Your task to perform on an android device: add a contact Image 0: 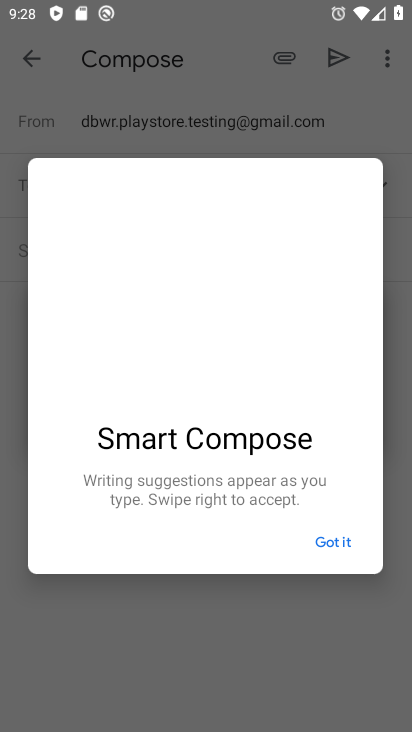
Step 0: press home button
Your task to perform on an android device: add a contact Image 1: 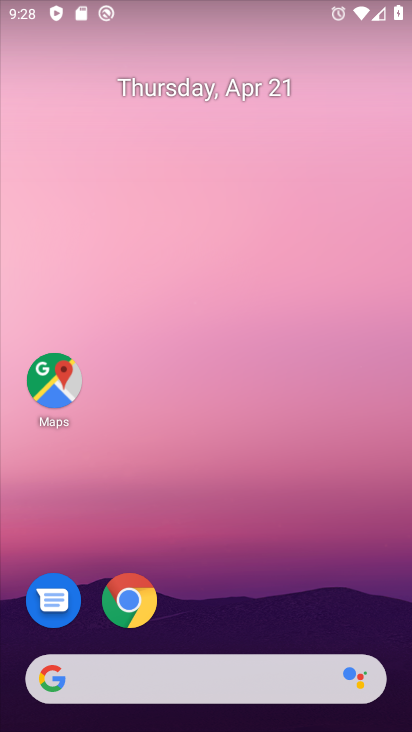
Step 1: drag from (232, 566) to (245, 93)
Your task to perform on an android device: add a contact Image 2: 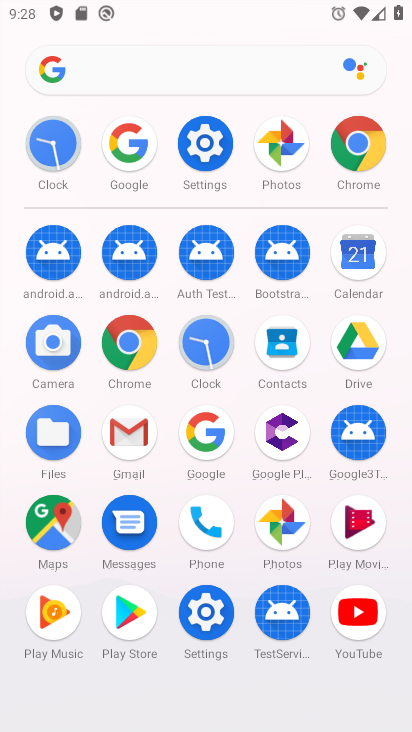
Step 2: click (284, 342)
Your task to perform on an android device: add a contact Image 3: 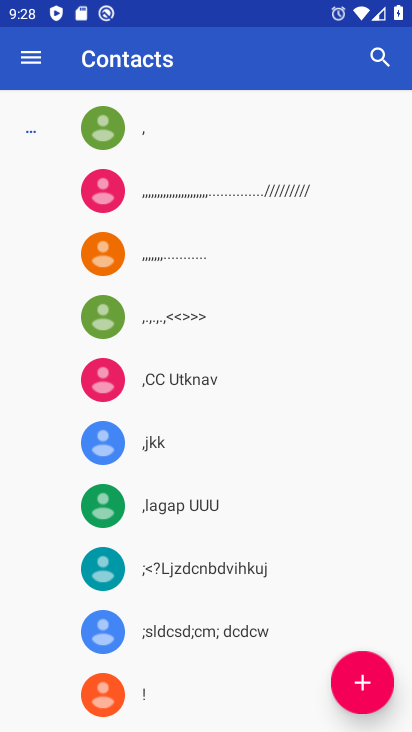
Step 3: click (356, 685)
Your task to perform on an android device: add a contact Image 4: 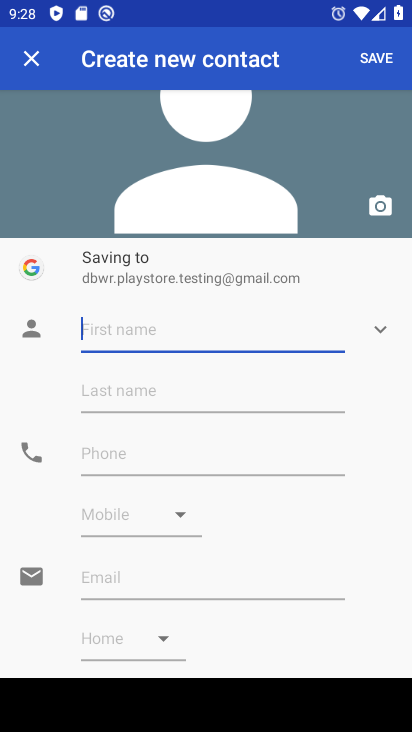
Step 4: click (149, 329)
Your task to perform on an android device: add a contact Image 5: 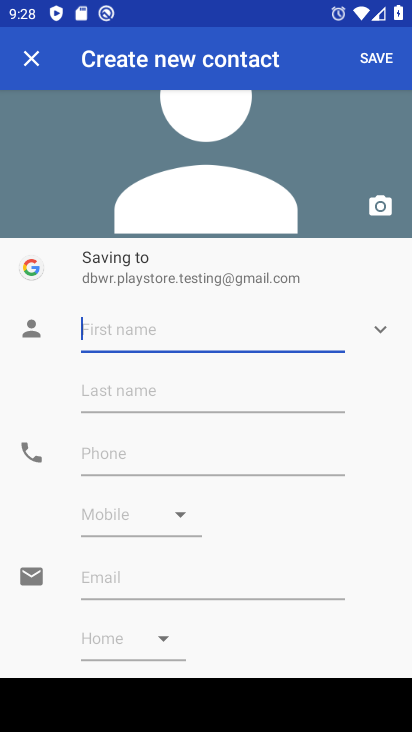
Step 5: type "jfgh"
Your task to perform on an android device: add a contact Image 6: 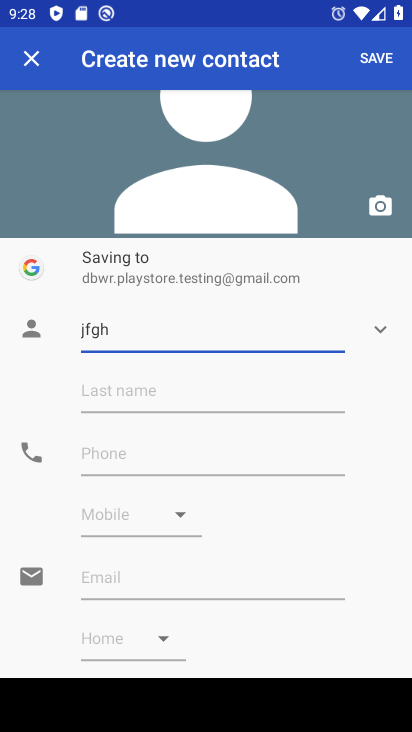
Step 6: click (375, 55)
Your task to perform on an android device: add a contact Image 7: 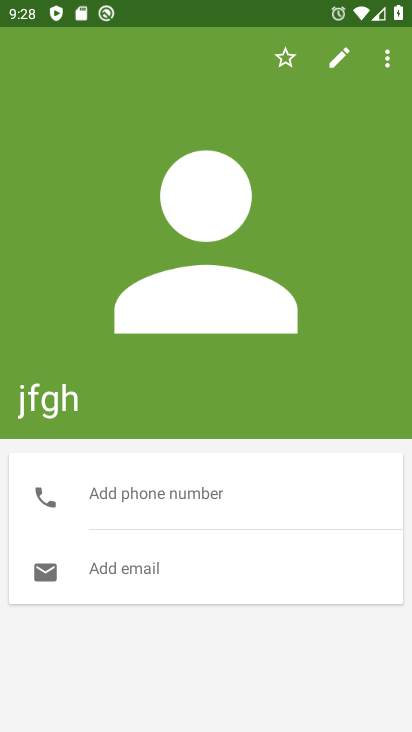
Step 7: task complete